Your task to perform on an android device: turn on showing notifications on the lock screen Image 0: 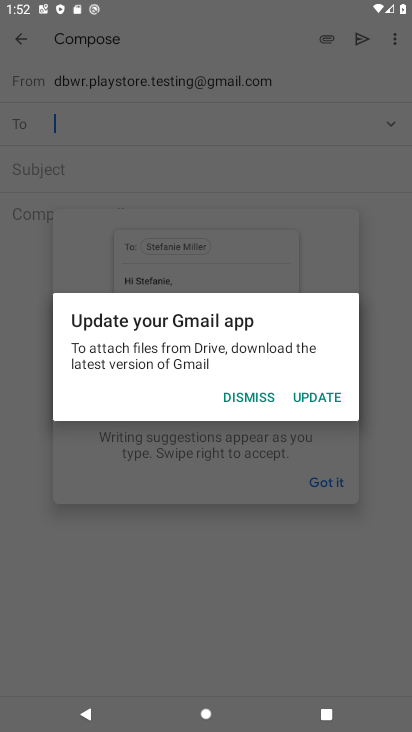
Step 0: press home button
Your task to perform on an android device: turn on showing notifications on the lock screen Image 1: 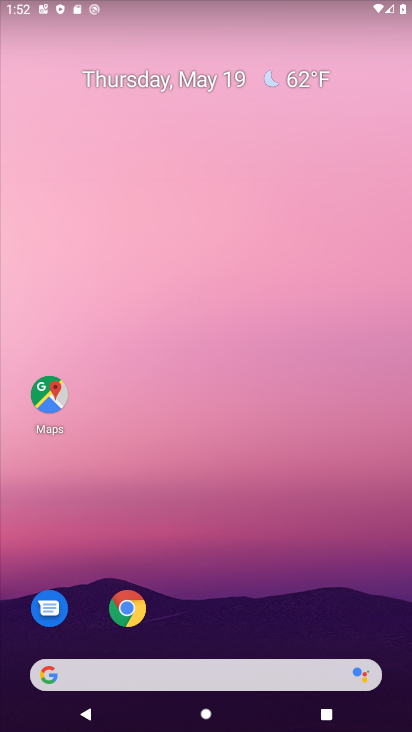
Step 1: drag from (307, 627) to (253, 169)
Your task to perform on an android device: turn on showing notifications on the lock screen Image 2: 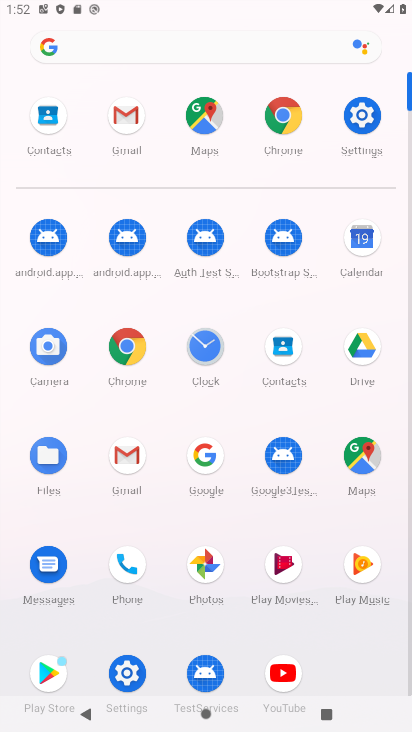
Step 2: click (350, 134)
Your task to perform on an android device: turn on showing notifications on the lock screen Image 3: 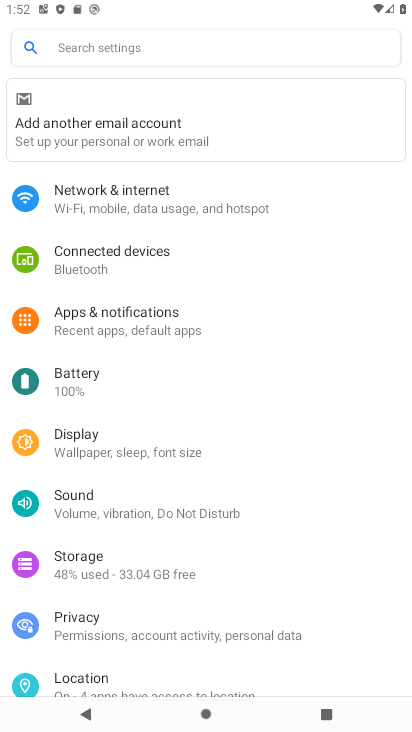
Step 3: click (151, 306)
Your task to perform on an android device: turn on showing notifications on the lock screen Image 4: 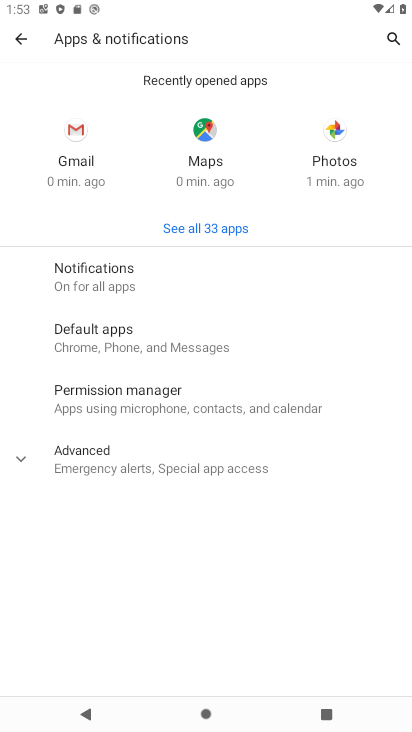
Step 4: click (112, 271)
Your task to perform on an android device: turn on showing notifications on the lock screen Image 5: 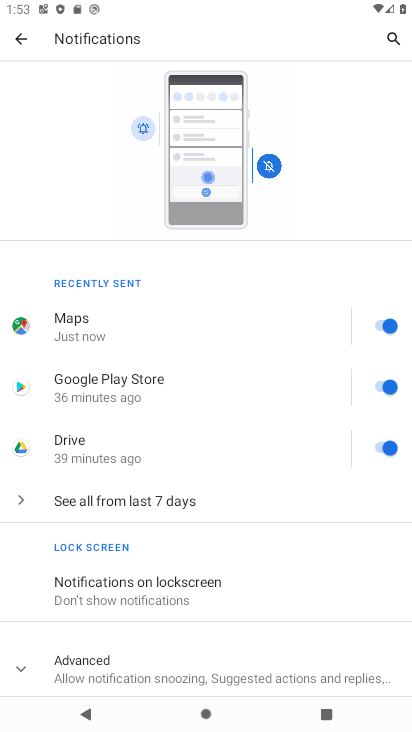
Step 5: click (213, 579)
Your task to perform on an android device: turn on showing notifications on the lock screen Image 6: 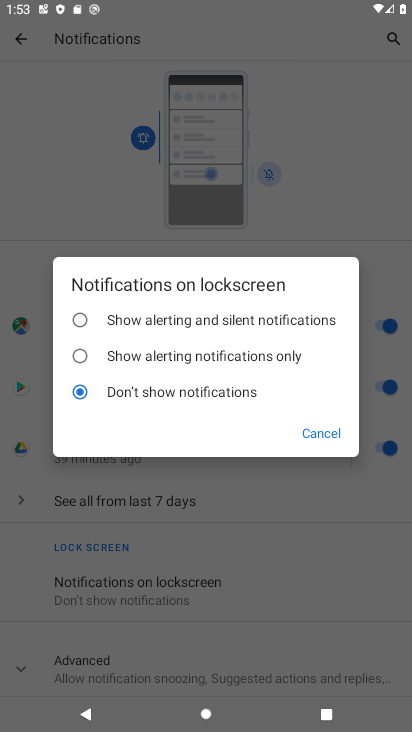
Step 6: click (166, 320)
Your task to perform on an android device: turn on showing notifications on the lock screen Image 7: 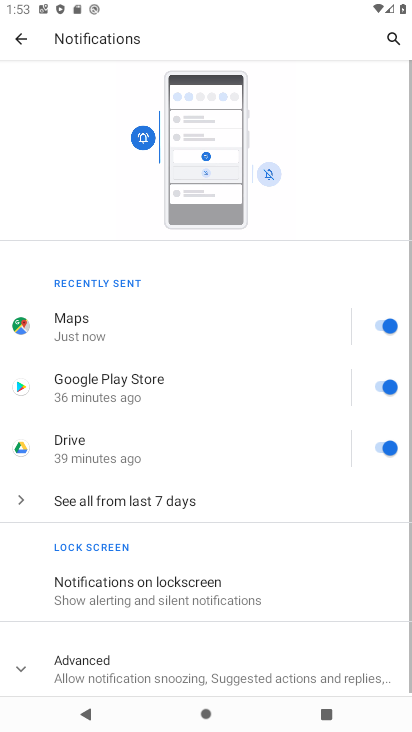
Step 7: task complete